Your task to perform on an android device: Toggle the flashlight Image 0: 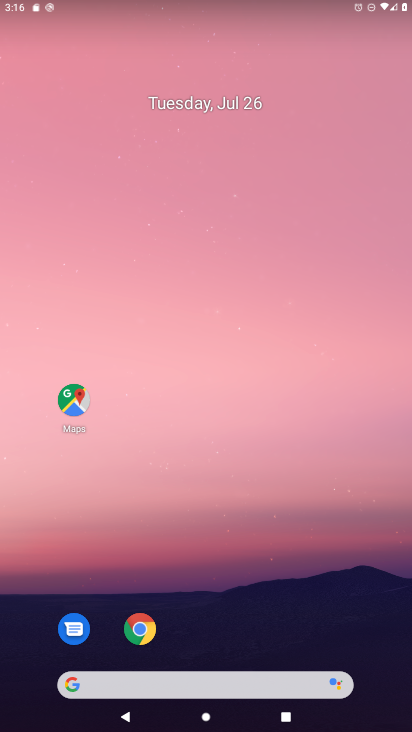
Step 0: drag from (224, 614) to (189, 265)
Your task to perform on an android device: Toggle the flashlight Image 1: 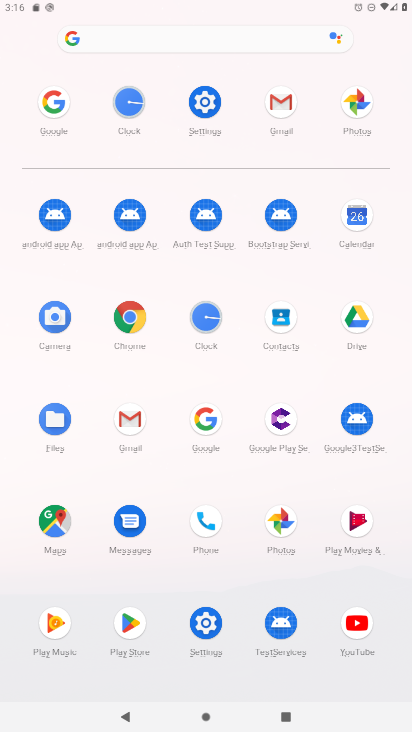
Step 1: click (208, 119)
Your task to perform on an android device: Toggle the flashlight Image 2: 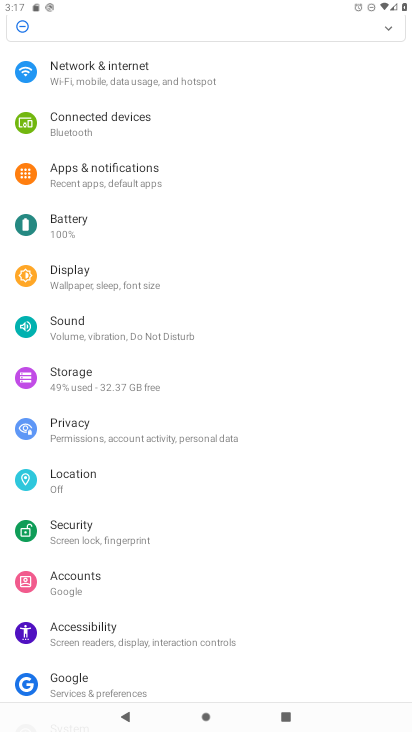
Step 2: task complete